Your task to perform on an android device: turn off data saver in the chrome app Image 0: 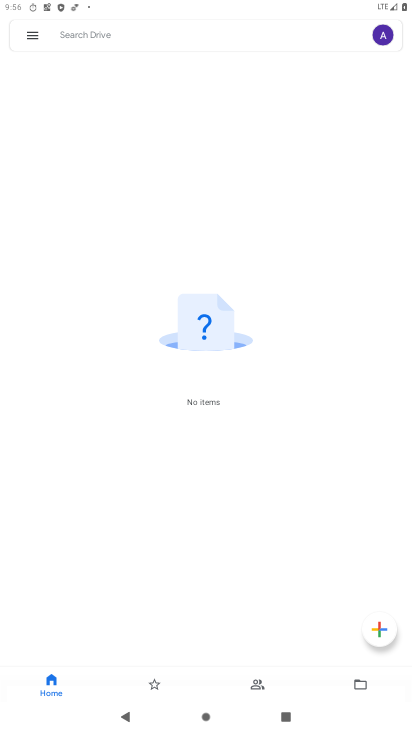
Step 0: press home button
Your task to perform on an android device: turn off data saver in the chrome app Image 1: 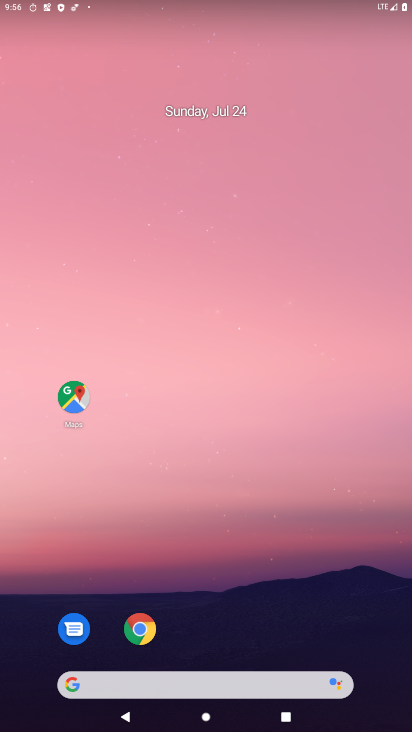
Step 1: drag from (281, 633) to (276, 63)
Your task to perform on an android device: turn off data saver in the chrome app Image 2: 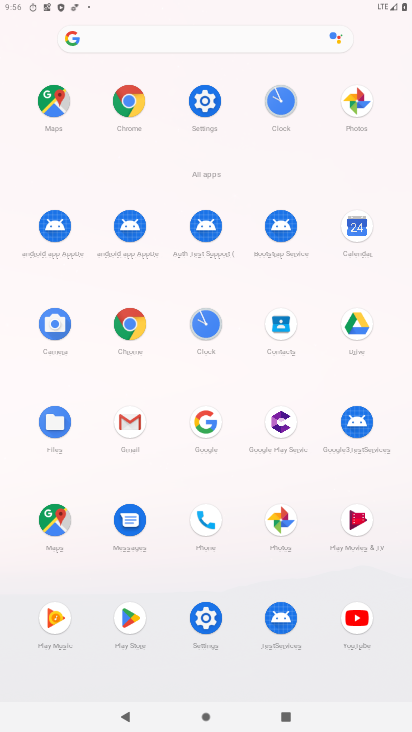
Step 2: click (125, 98)
Your task to perform on an android device: turn off data saver in the chrome app Image 3: 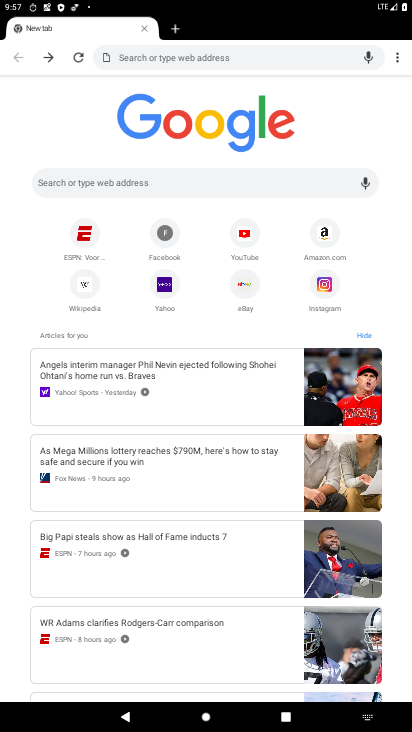
Step 3: drag from (399, 48) to (280, 260)
Your task to perform on an android device: turn off data saver in the chrome app Image 4: 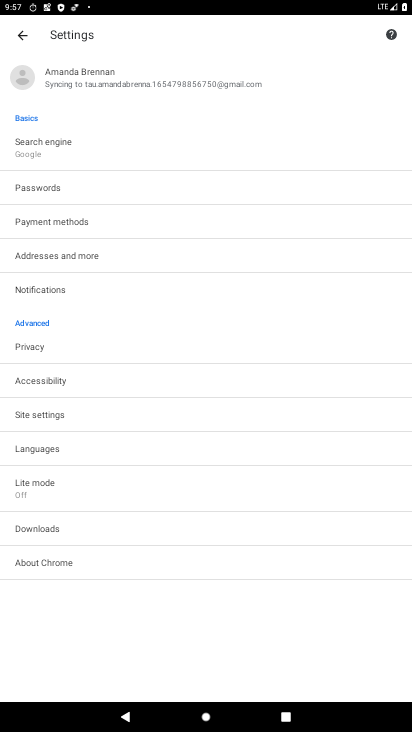
Step 4: click (61, 485)
Your task to perform on an android device: turn off data saver in the chrome app Image 5: 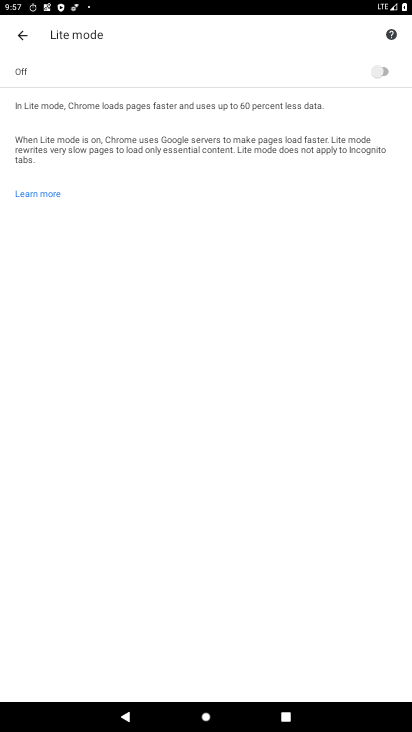
Step 5: task complete